Your task to perform on an android device: Open battery settings Image 0: 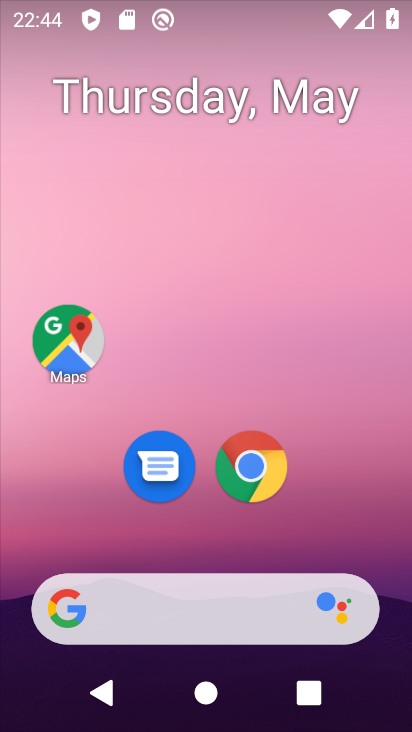
Step 0: drag from (334, 434) to (323, 31)
Your task to perform on an android device: Open battery settings Image 1: 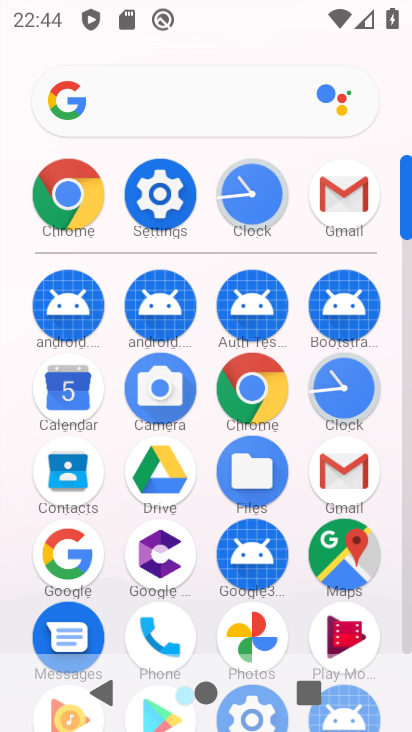
Step 1: click (152, 194)
Your task to perform on an android device: Open battery settings Image 2: 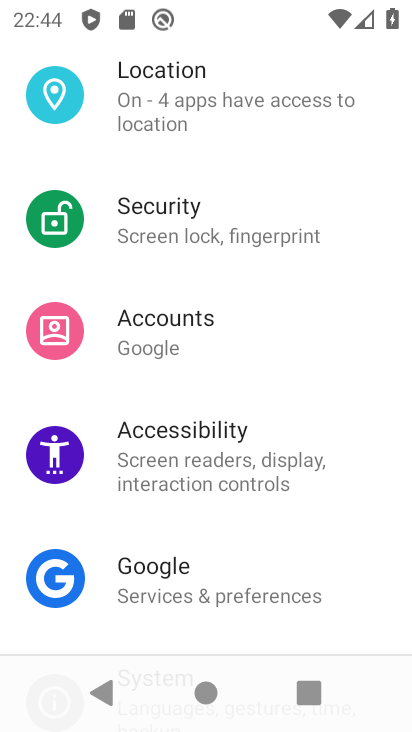
Step 2: drag from (160, 188) to (217, 598)
Your task to perform on an android device: Open battery settings Image 3: 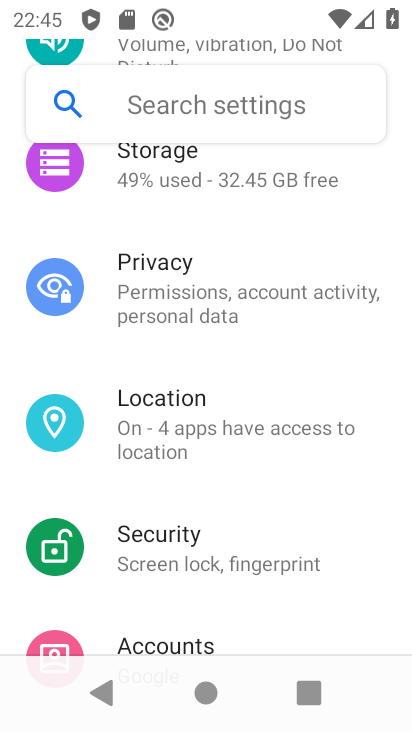
Step 3: drag from (247, 224) to (256, 580)
Your task to perform on an android device: Open battery settings Image 4: 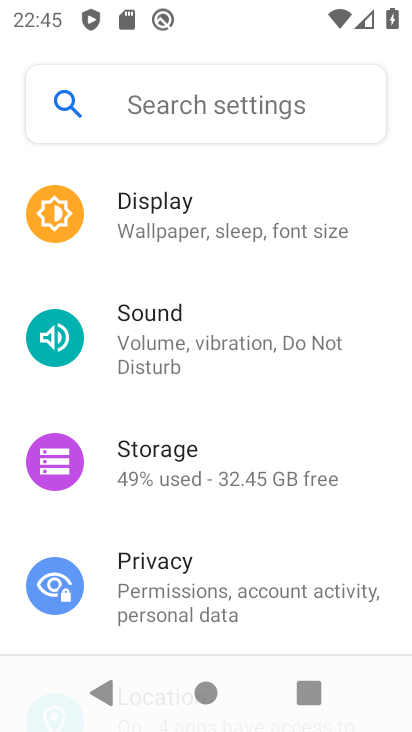
Step 4: drag from (257, 577) to (317, 14)
Your task to perform on an android device: Open battery settings Image 5: 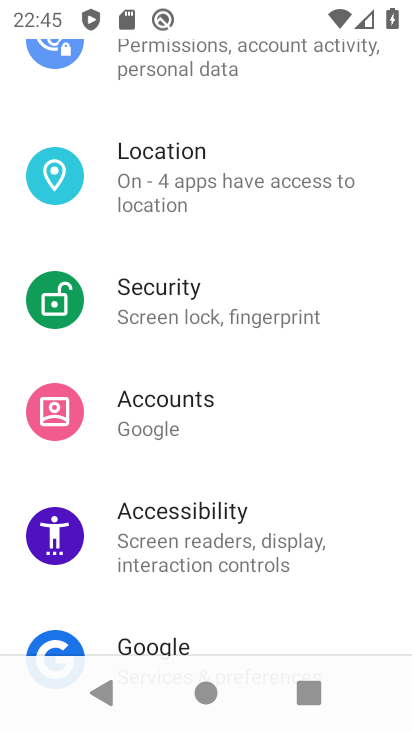
Step 5: drag from (235, 224) to (221, 698)
Your task to perform on an android device: Open battery settings Image 6: 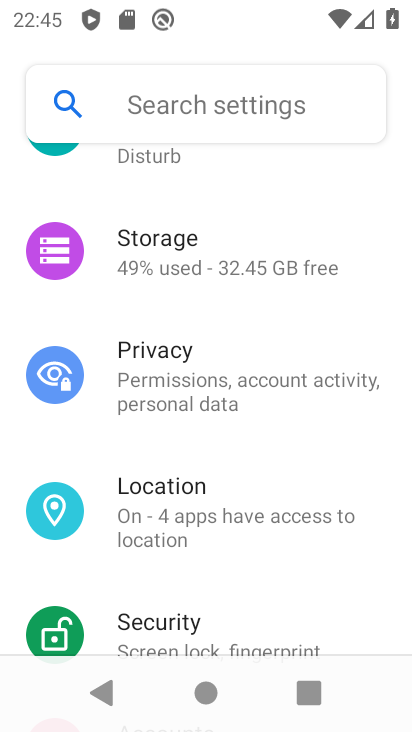
Step 6: drag from (225, 301) to (246, 689)
Your task to perform on an android device: Open battery settings Image 7: 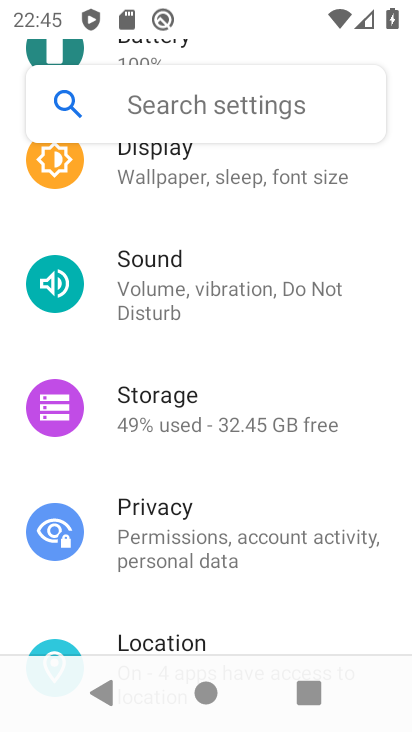
Step 7: drag from (289, 210) to (257, 647)
Your task to perform on an android device: Open battery settings Image 8: 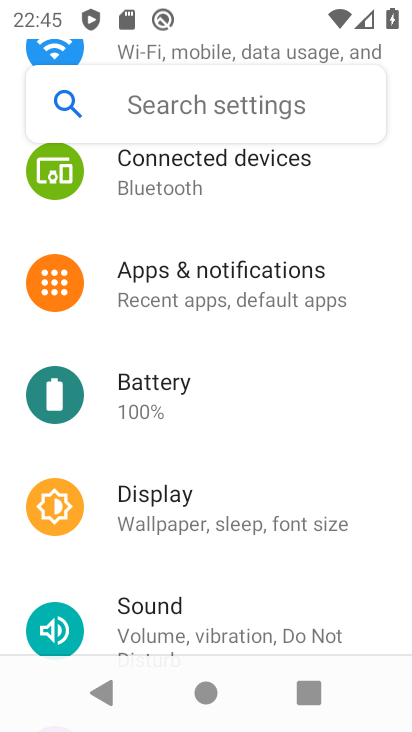
Step 8: click (140, 385)
Your task to perform on an android device: Open battery settings Image 9: 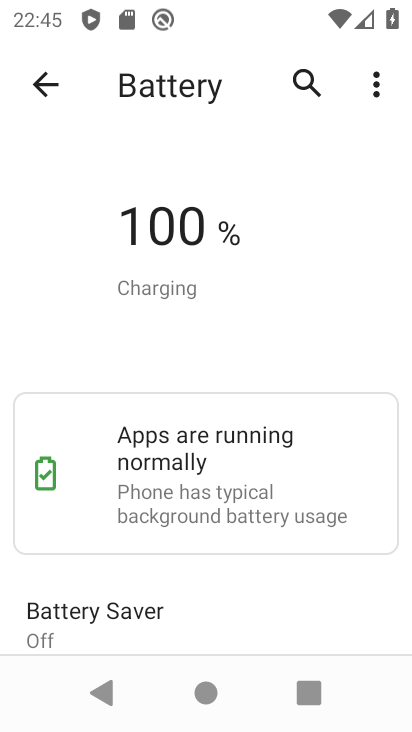
Step 9: task complete